Your task to perform on an android device: see tabs open on other devices in the chrome app Image 0: 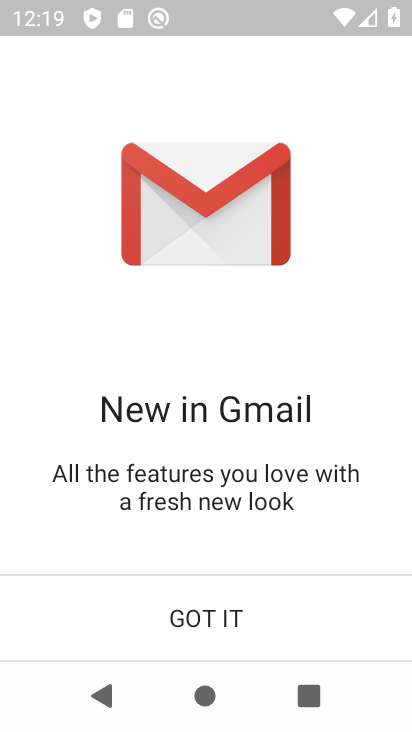
Step 0: press home button
Your task to perform on an android device: see tabs open on other devices in the chrome app Image 1: 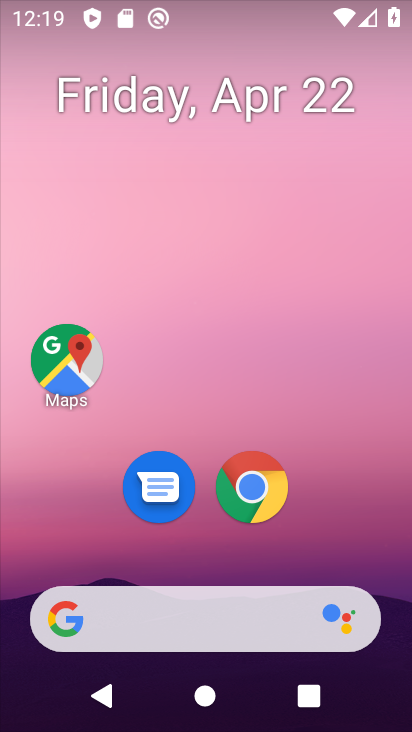
Step 1: click (233, 489)
Your task to perform on an android device: see tabs open on other devices in the chrome app Image 2: 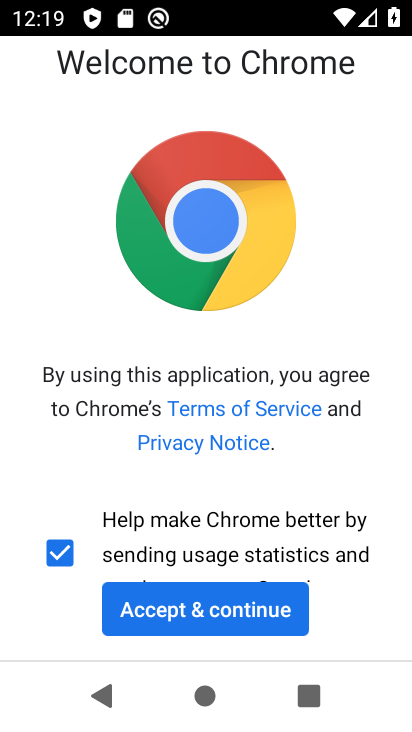
Step 2: click (258, 605)
Your task to perform on an android device: see tabs open on other devices in the chrome app Image 3: 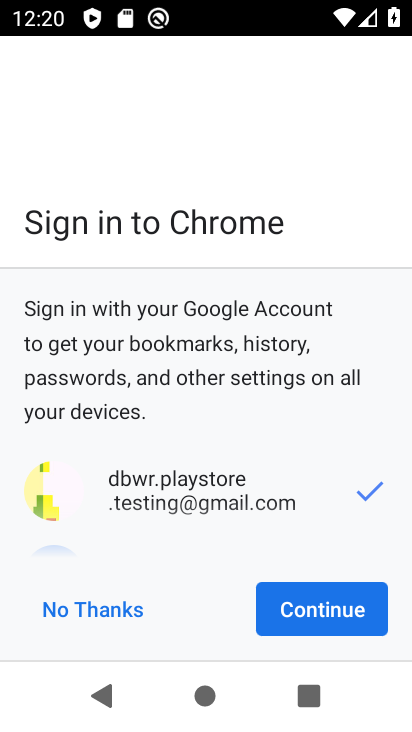
Step 3: click (276, 593)
Your task to perform on an android device: see tabs open on other devices in the chrome app Image 4: 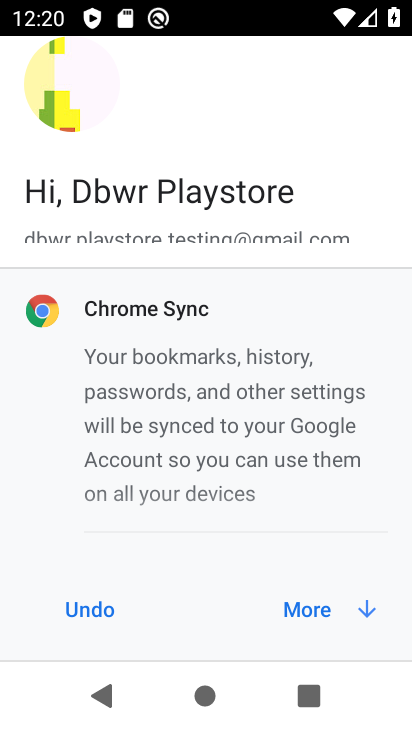
Step 4: click (286, 598)
Your task to perform on an android device: see tabs open on other devices in the chrome app Image 5: 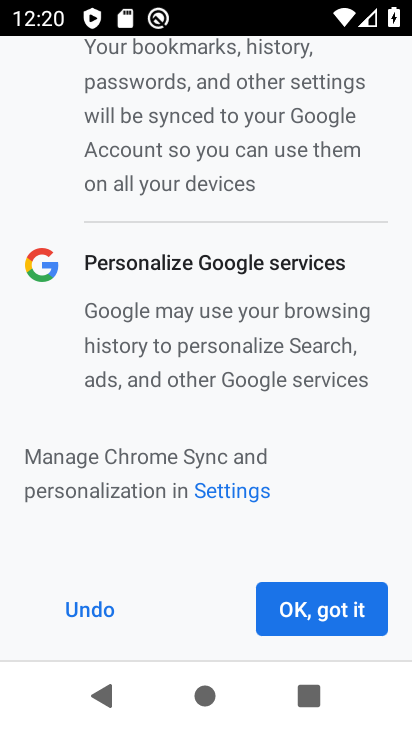
Step 5: click (287, 598)
Your task to perform on an android device: see tabs open on other devices in the chrome app Image 6: 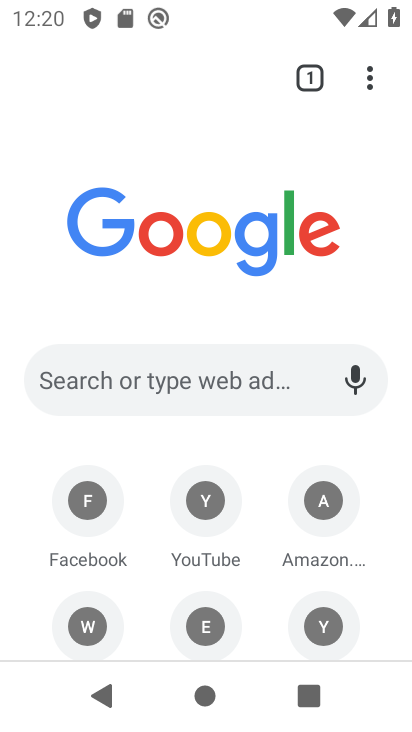
Step 6: task complete